Your task to perform on an android device: Go to Google Image 0: 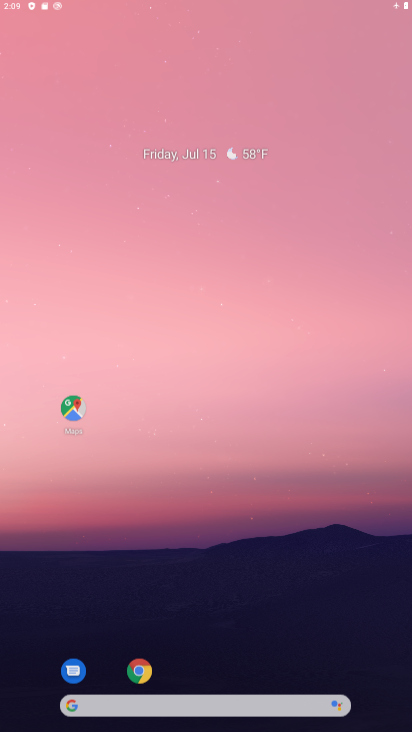
Step 0: click (134, 670)
Your task to perform on an android device: Go to Google Image 1: 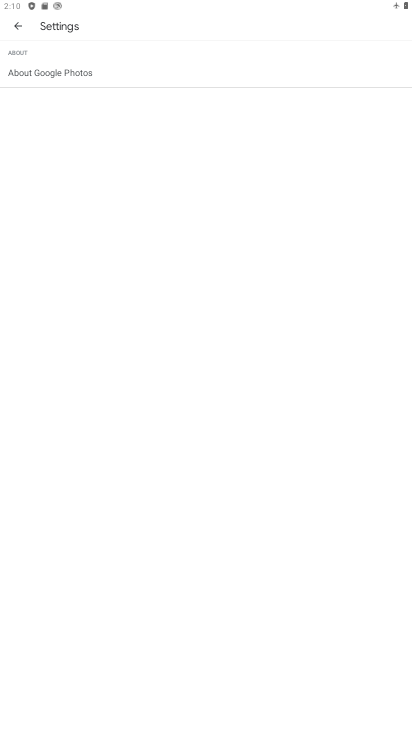
Step 1: press home button
Your task to perform on an android device: Go to Google Image 2: 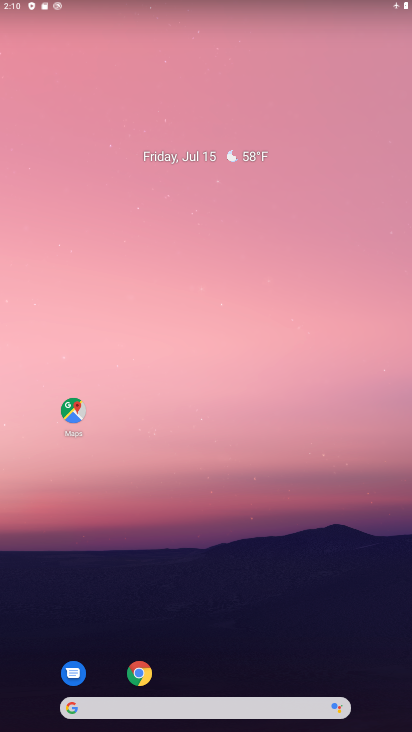
Step 2: drag from (386, 677) to (324, 115)
Your task to perform on an android device: Go to Google Image 3: 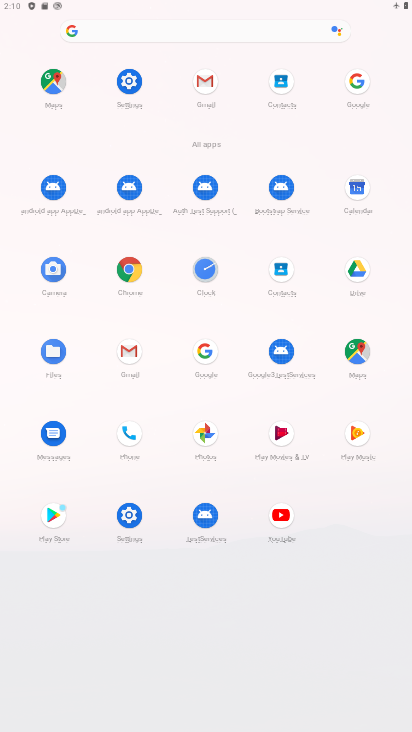
Step 3: click (198, 348)
Your task to perform on an android device: Go to Google Image 4: 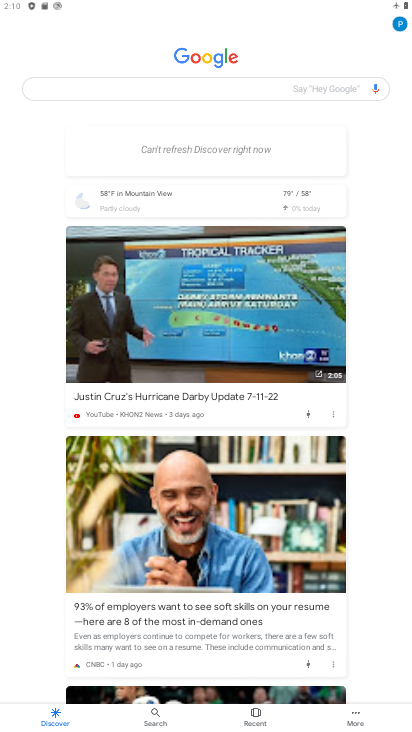
Step 4: task complete